Your task to perform on an android device: snooze an email in the gmail app Image 0: 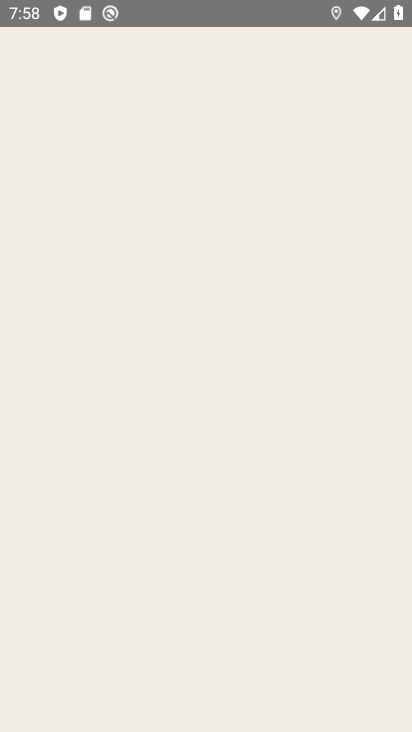
Step 0: press home button
Your task to perform on an android device: snooze an email in the gmail app Image 1: 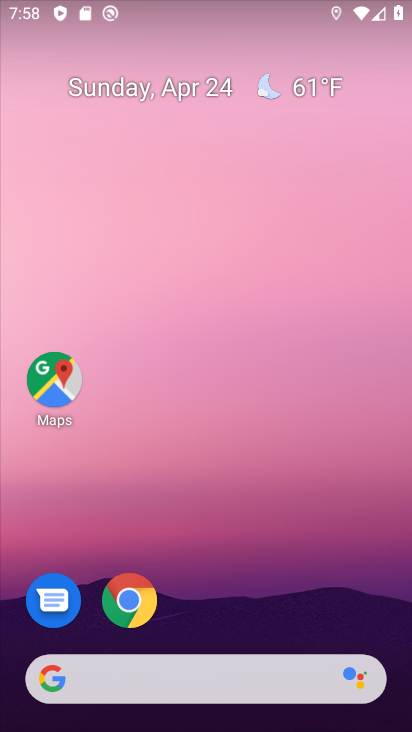
Step 1: drag from (226, 727) to (213, 112)
Your task to perform on an android device: snooze an email in the gmail app Image 2: 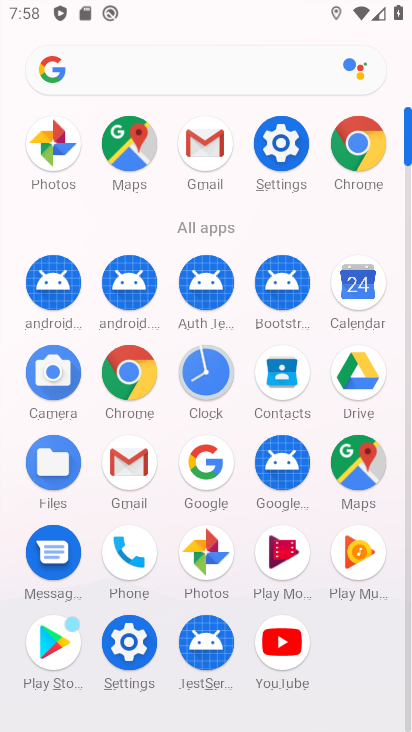
Step 2: click (126, 463)
Your task to perform on an android device: snooze an email in the gmail app Image 3: 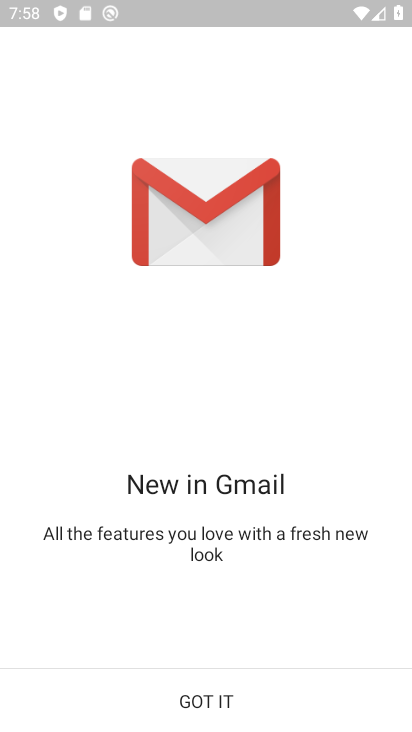
Step 3: click (204, 691)
Your task to perform on an android device: snooze an email in the gmail app Image 4: 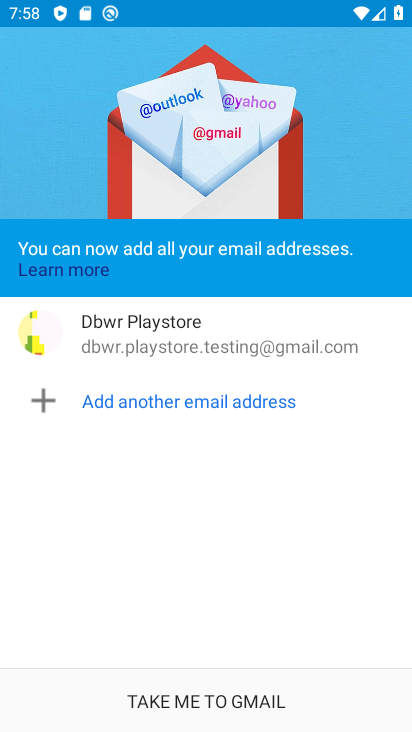
Step 4: click (212, 693)
Your task to perform on an android device: snooze an email in the gmail app Image 5: 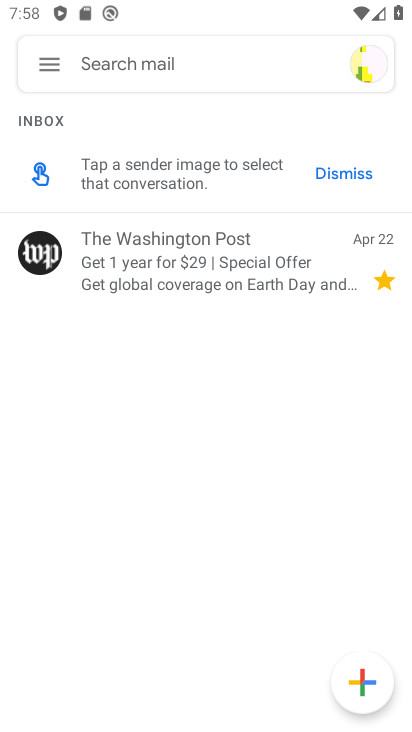
Step 5: click (188, 251)
Your task to perform on an android device: snooze an email in the gmail app Image 6: 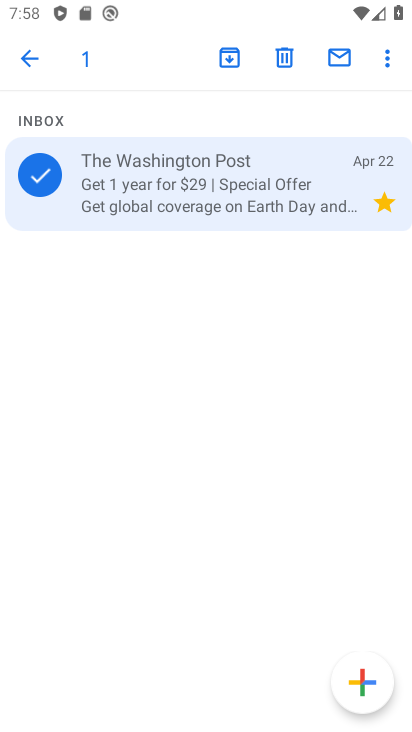
Step 6: click (385, 58)
Your task to perform on an android device: snooze an email in the gmail app Image 7: 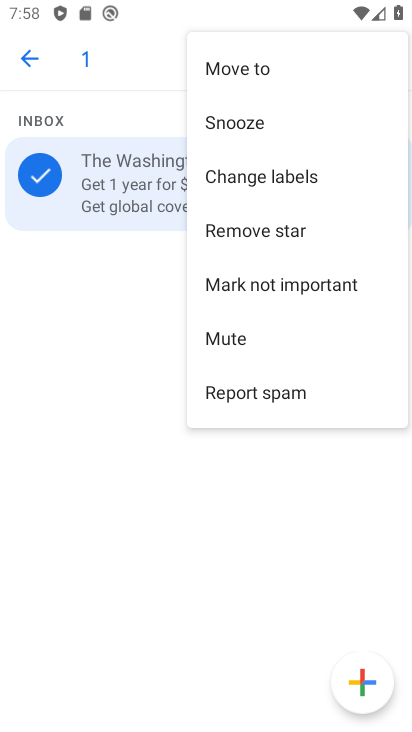
Step 7: click (243, 119)
Your task to perform on an android device: snooze an email in the gmail app Image 8: 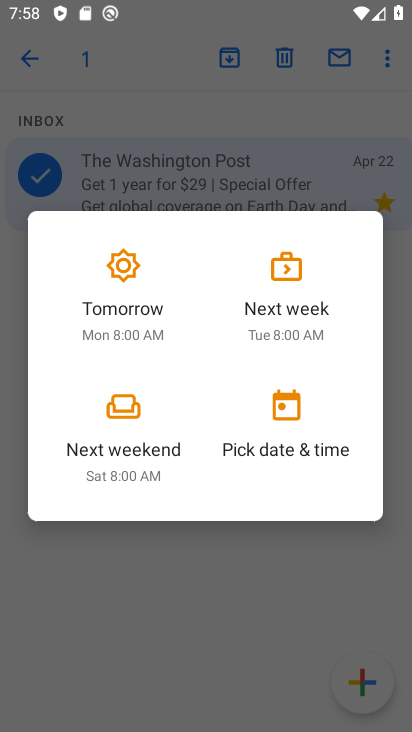
Step 8: click (133, 303)
Your task to perform on an android device: snooze an email in the gmail app Image 9: 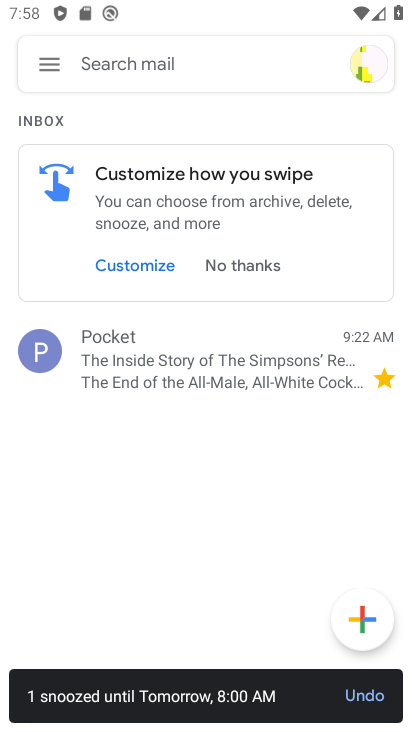
Step 9: task complete